Your task to perform on an android device: Open battery settings Image 0: 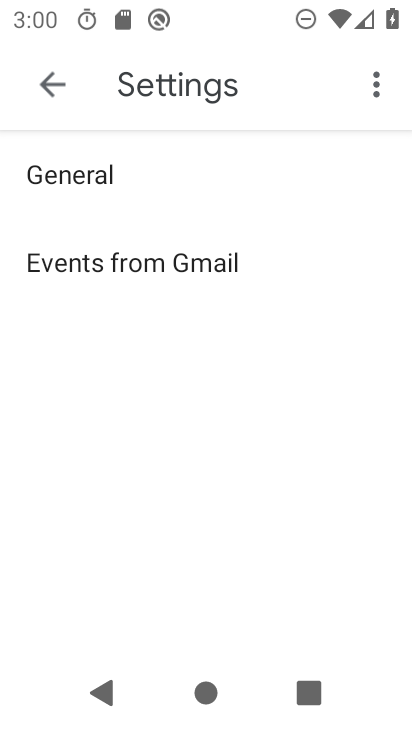
Step 0: press home button
Your task to perform on an android device: Open battery settings Image 1: 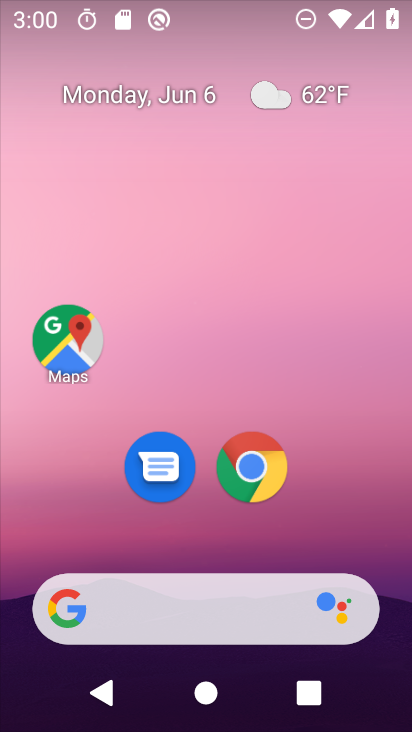
Step 1: drag from (191, 560) to (238, 44)
Your task to perform on an android device: Open battery settings Image 2: 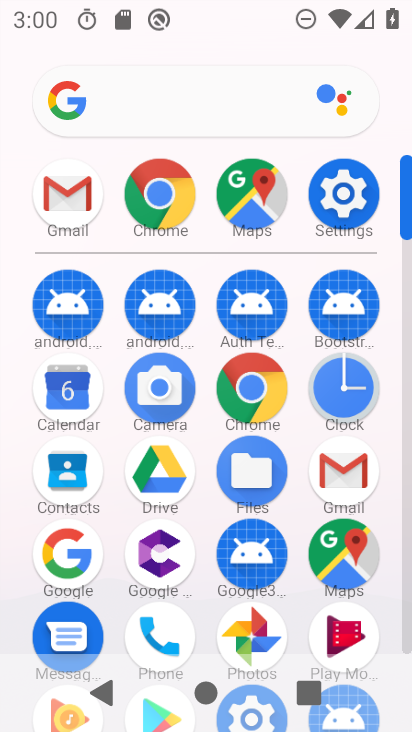
Step 2: click (334, 196)
Your task to perform on an android device: Open battery settings Image 3: 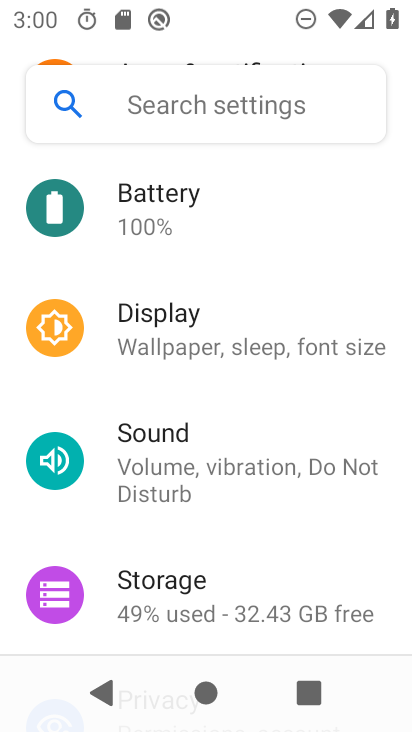
Step 3: drag from (260, 315) to (257, 583)
Your task to perform on an android device: Open battery settings Image 4: 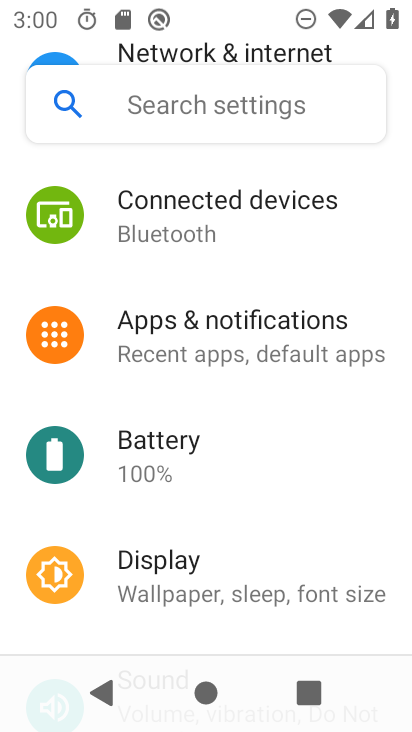
Step 4: drag from (205, 375) to (204, 581)
Your task to perform on an android device: Open battery settings Image 5: 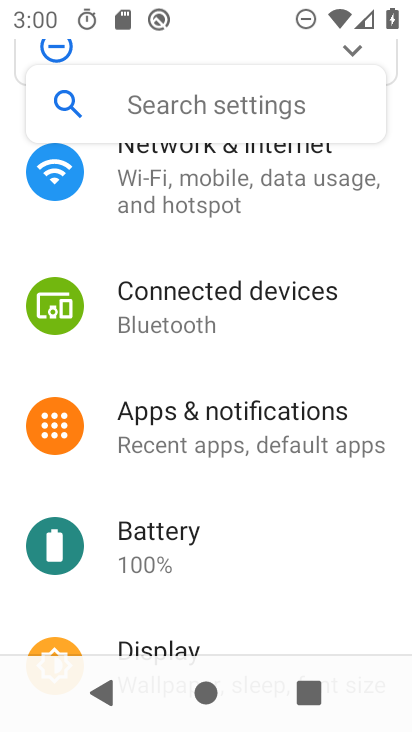
Step 5: click (177, 551)
Your task to perform on an android device: Open battery settings Image 6: 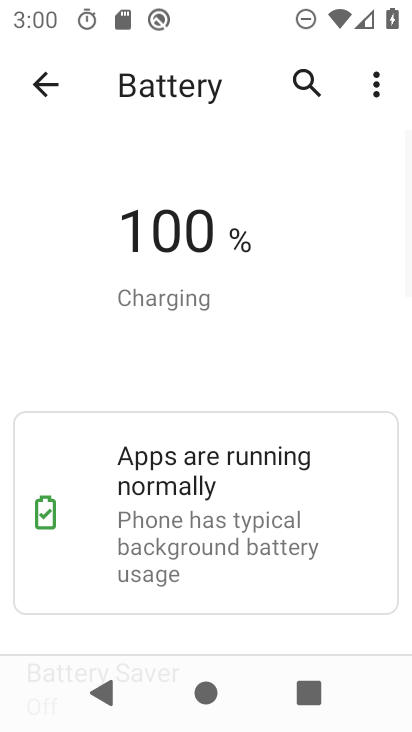
Step 6: task complete